Your task to perform on an android device: uninstall "Reddit" Image 0: 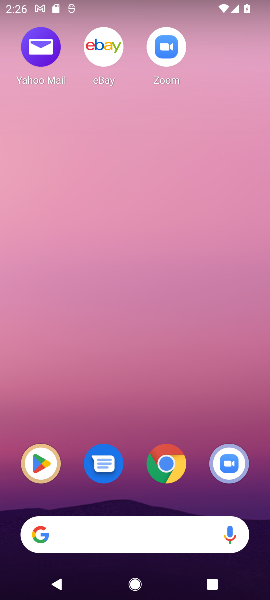
Step 0: press home button
Your task to perform on an android device: uninstall "Reddit" Image 1: 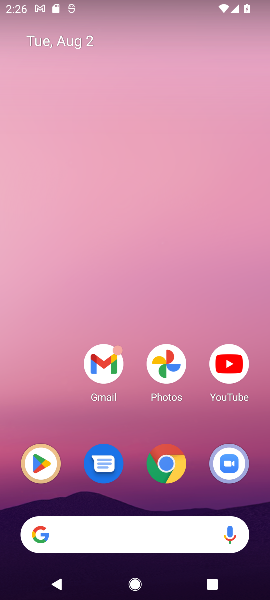
Step 1: click (43, 464)
Your task to perform on an android device: uninstall "Reddit" Image 2: 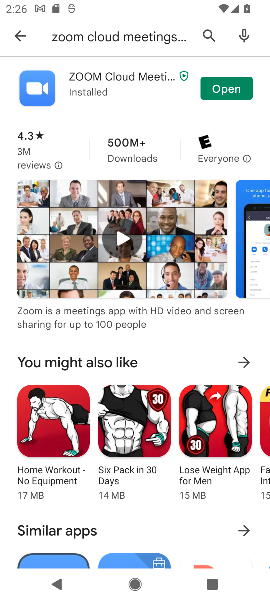
Step 2: click (207, 28)
Your task to perform on an android device: uninstall "Reddit" Image 3: 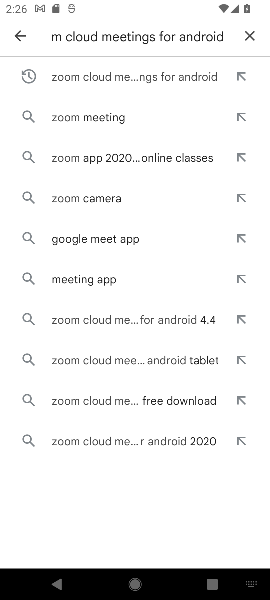
Step 3: click (249, 37)
Your task to perform on an android device: uninstall "Reddit" Image 4: 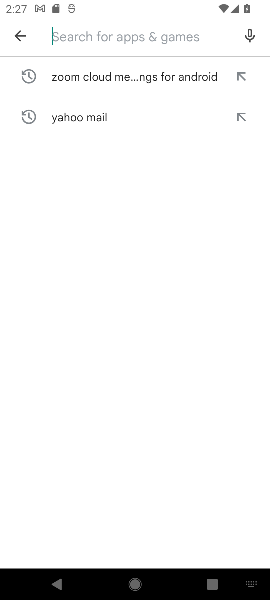
Step 4: type "Reddit"
Your task to perform on an android device: uninstall "Reddit" Image 5: 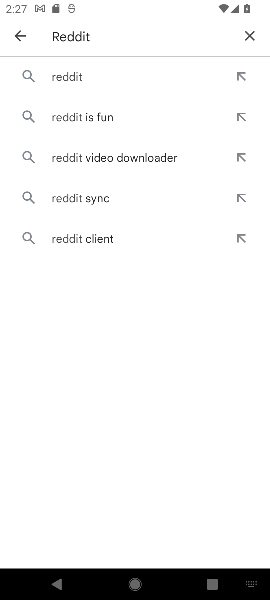
Step 5: click (61, 71)
Your task to perform on an android device: uninstall "Reddit" Image 6: 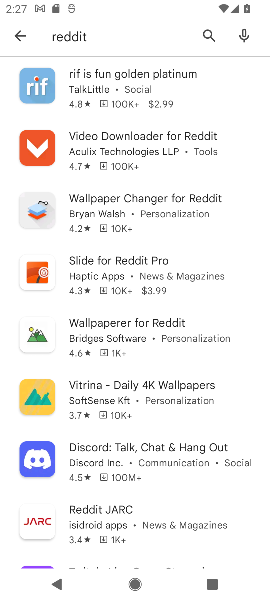
Step 6: task complete